Your task to perform on an android device: see tabs open on other devices in the chrome app Image 0: 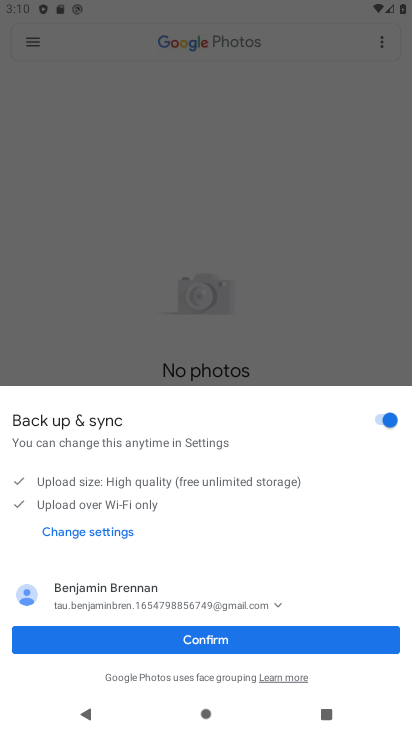
Step 0: press home button
Your task to perform on an android device: see tabs open on other devices in the chrome app Image 1: 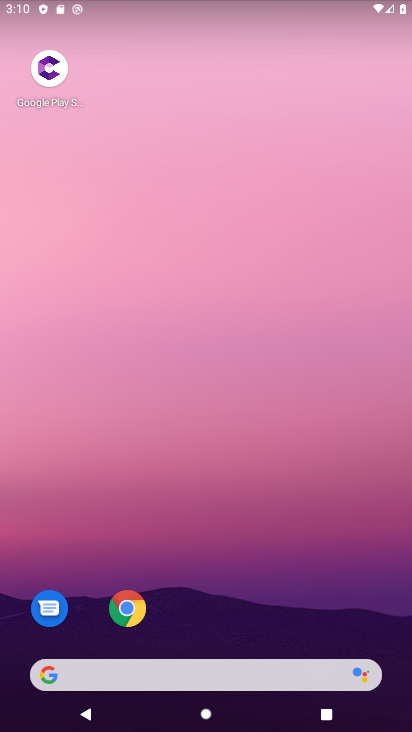
Step 1: click (140, 601)
Your task to perform on an android device: see tabs open on other devices in the chrome app Image 2: 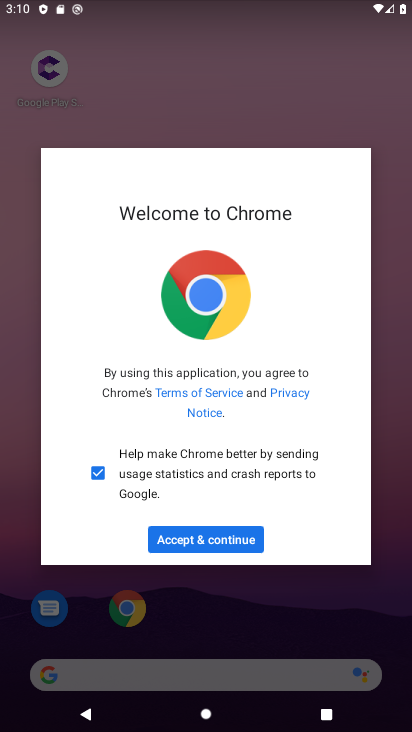
Step 2: click (207, 536)
Your task to perform on an android device: see tabs open on other devices in the chrome app Image 3: 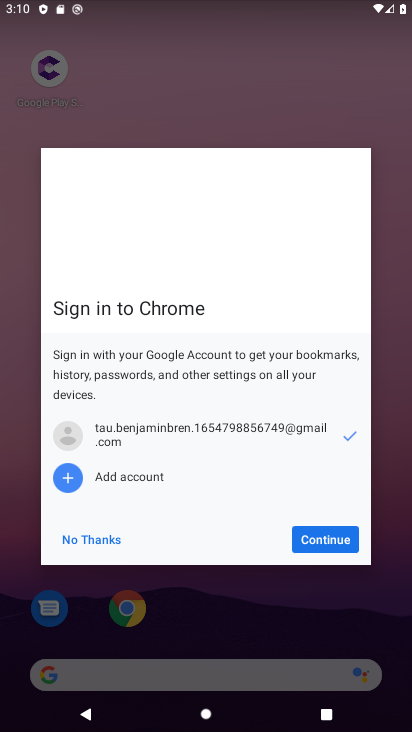
Step 3: click (306, 539)
Your task to perform on an android device: see tabs open on other devices in the chrome app Image 4: 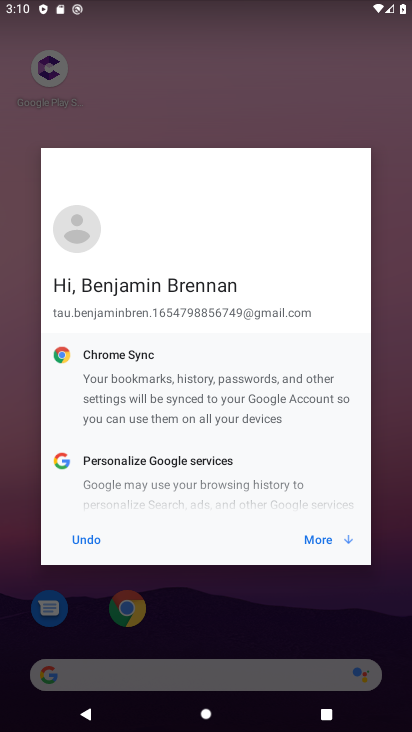
Step 4: click (306, 538)
Your task to perform on an android device: see tabs open on other devices in the chrome app Image 5: 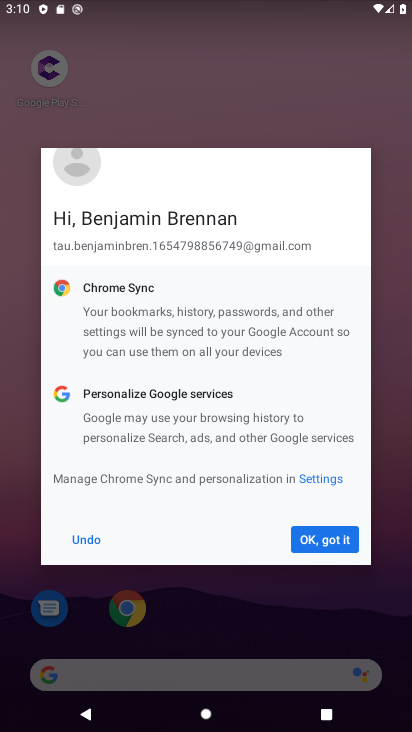
Step 5: click (312, 540)
Your task to perform on an android device: see tabs open on other devices in the chrome app Image 6: 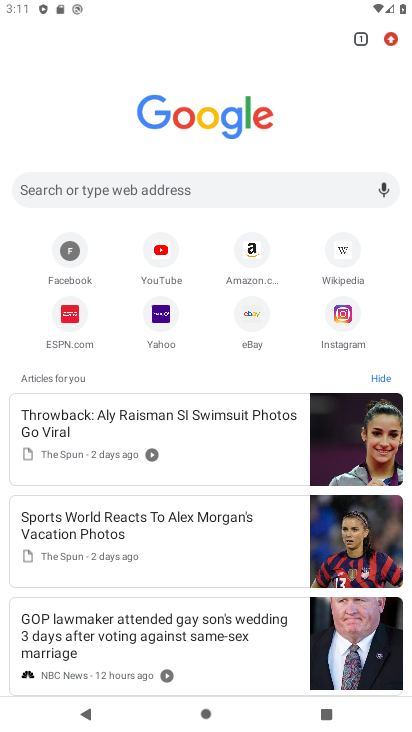
Step 6: click (393, 38)
Your task to perform on an android device: see tabs open on other devices in the chrome app Image 7: 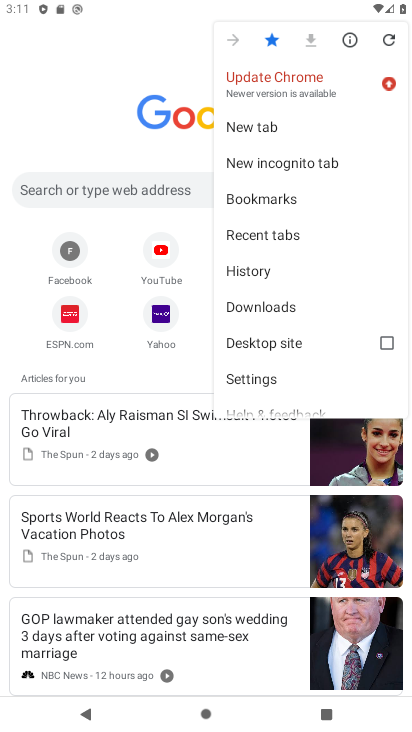
Step 7: click (261, 236)
Your task to perform on an android device: see tabs open on other devices in the chrome app Image 8: 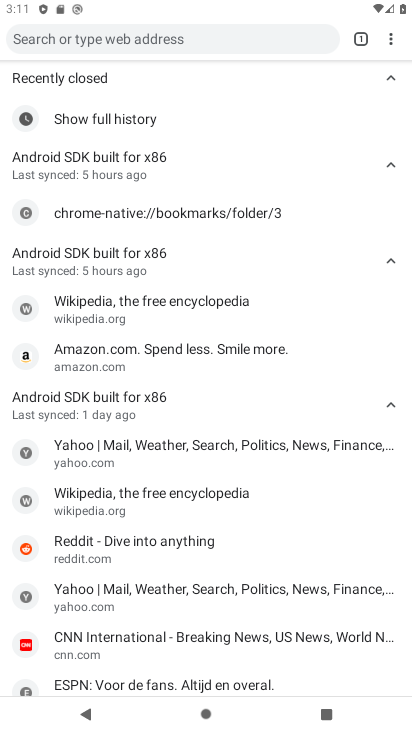
Step 8: task complete